Your task to perform on an android device: turn off improve location accuracy Image 0: 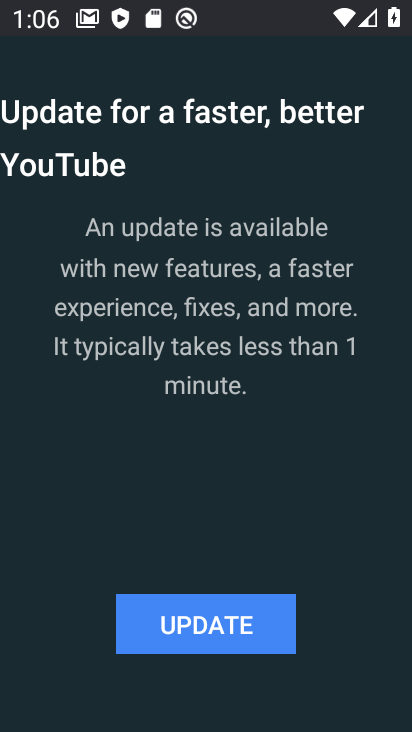
Step 0: press back button
Your task to perform on an android device: turn off improve location accuracy Image 1: 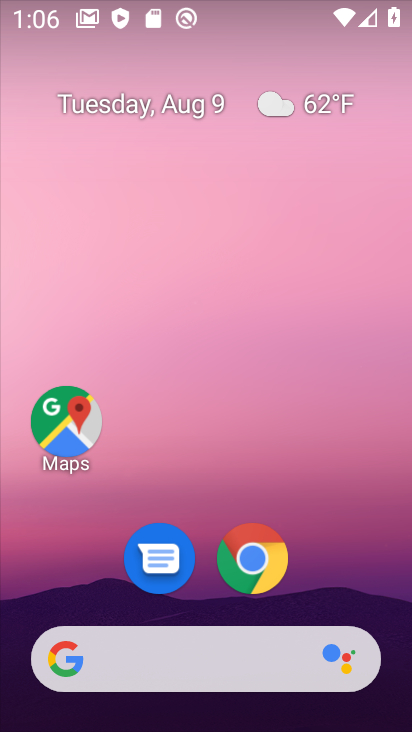
Step 1: drag from (358, 575) to (328, 129)
Your task to perform on an android device: turn off improve location accuracy Image 2: 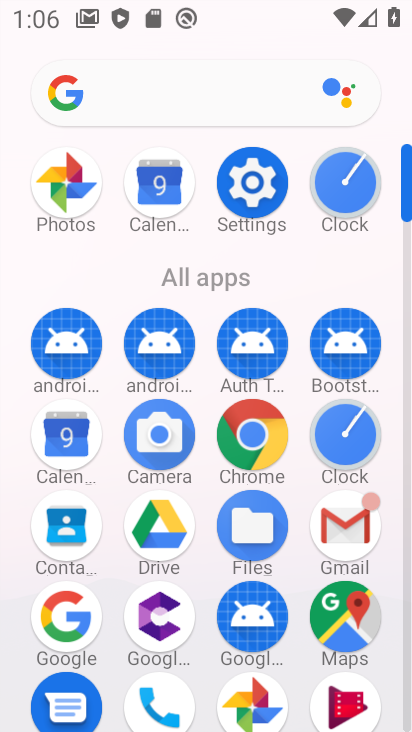
Step 2: click (260, 214)
Your task to perform on an android device: turn off improve location accuracy Image 3: 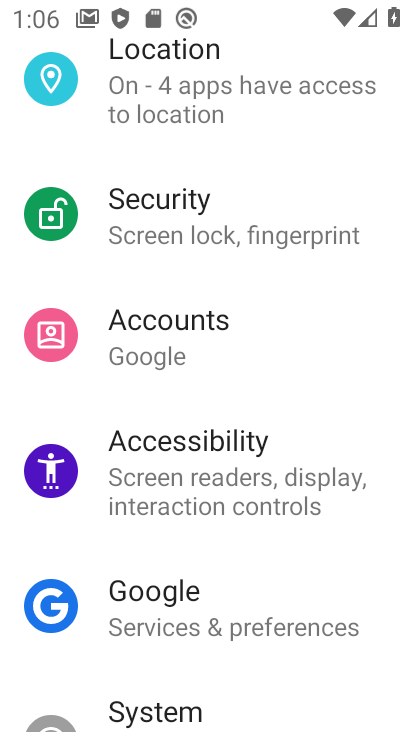
Step 3: drag from (330, 626) to (274, 119)
Your task to perform on an android device: turn off improve location accuracy Image 4: 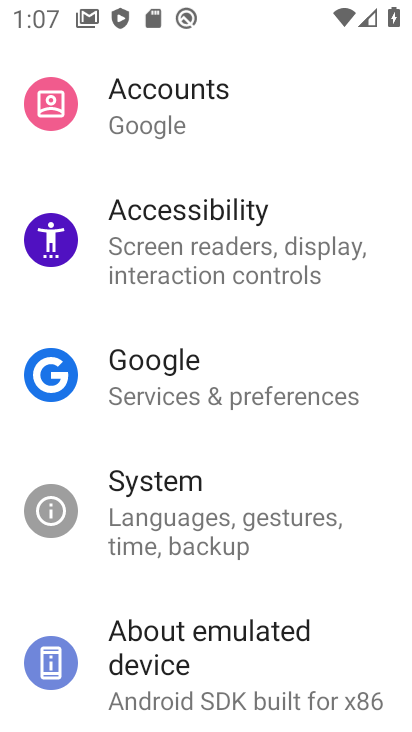
Step 4: drag from (245, 182) to (280, 729)
Your task to perform on an android device: turn off improve location accuracy Image 5: 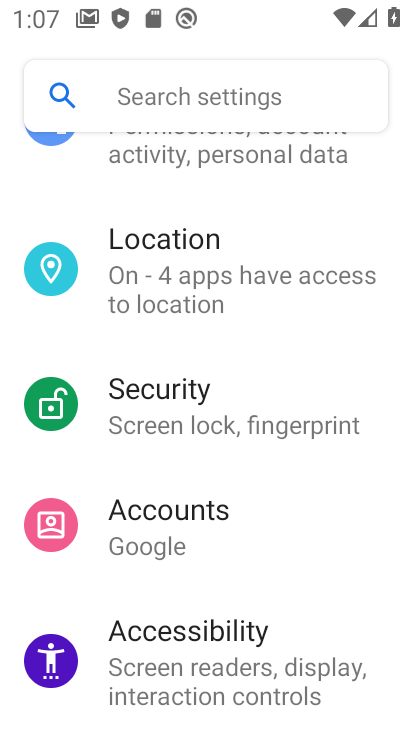
Step 5: click (158, 306)
Your task to perform on an android device: turn off improve location accuracy Image 6: 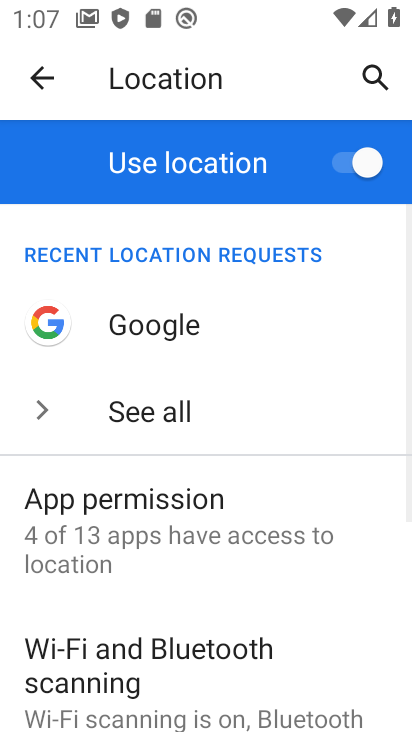
Step 6: drag from (303, 608) to (208, 330)
Your task to perform on an android device: turn off improve location accuracy Image 7: 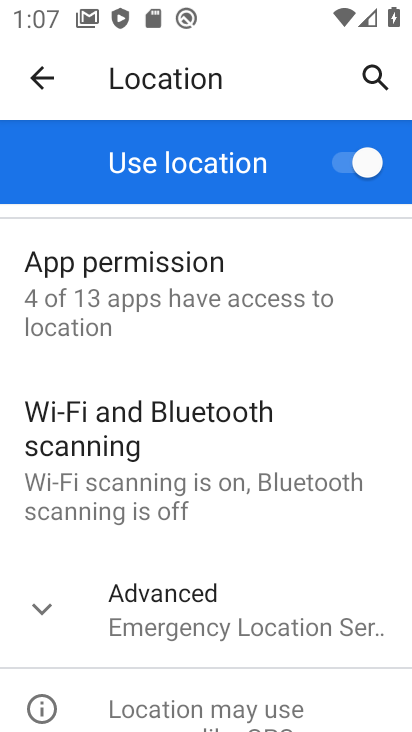
Step 7: click (237, 613)
Your task to perform on an android device: turn off improve location accuracy Image 8: 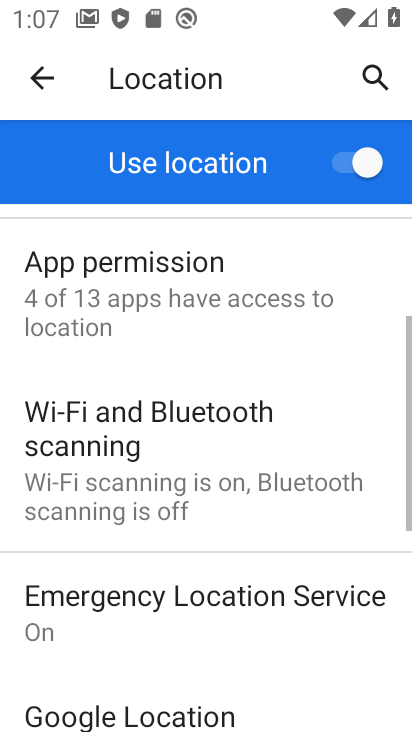
Step 8: drag from (237, 613) to (176, 421)
Your task to perform on an android device: turn off improve location accuracy Image 9: 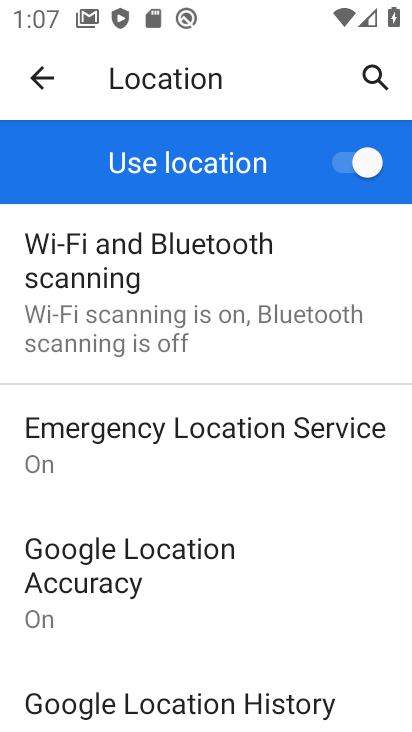
Step 9: click (147, 583)
Your task to perform on an android device: turn off improve location accuracy Image 10: 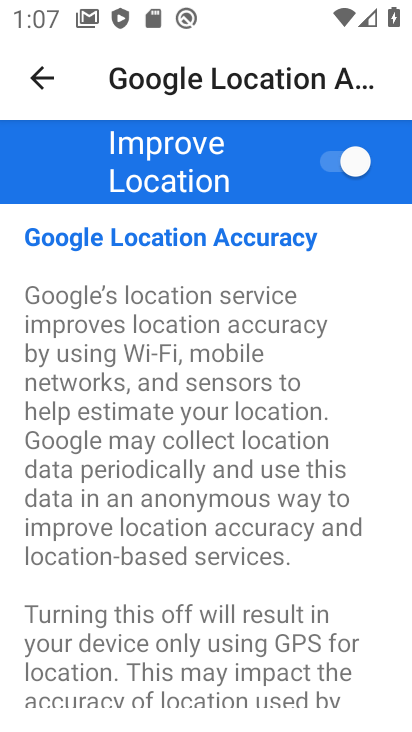
Step 10: click (341, 178)
Your task to perform on an android device: turn off improve location accuracy Image 11: 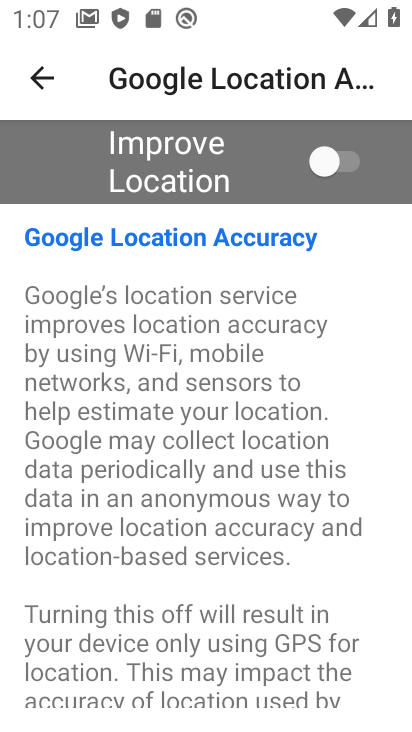
Step 11: task complete